Your task to perform on an android device: turn on the 24-hour format for clock Image 0: 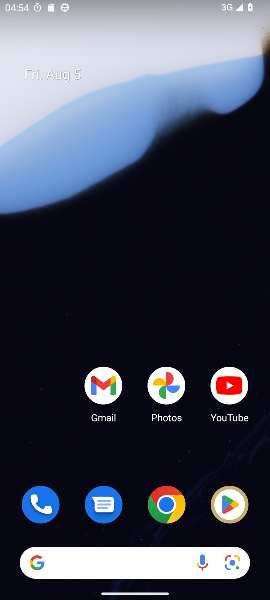
Step 0: drag from (8, 579) to (150, 150)
Your task to perform on an android device: turn on the 24-hour format for clock Image 1: 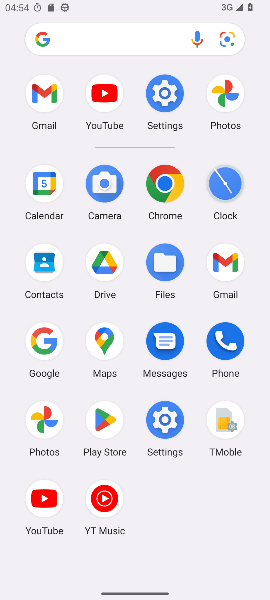
Step 1: click (240, 180)
Your task to perform on an android device: turn on the 24-hour format for clock Image 2: 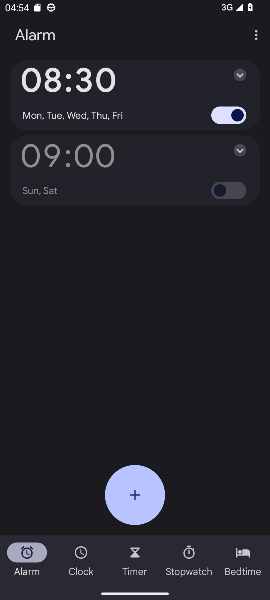
Step 2: click (255, 45)
Your task to perform on an android device: turn on the 24-hour format for clock Image 3: 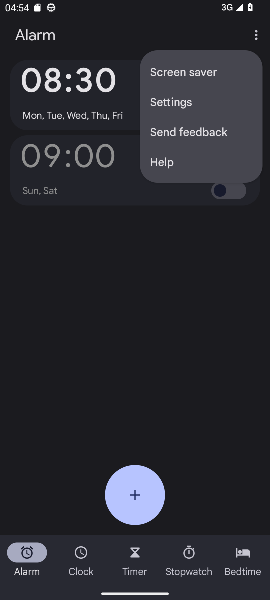
Step 3: click (170, 108)
Your task to perform on an android device: turn on the 24-hour format for clock Image 4: 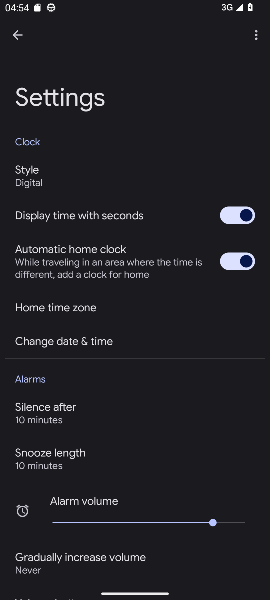
Step 4: click (74, 337)
Your task to perform on an android device: turn on the 24-hour format for clock Image 5: 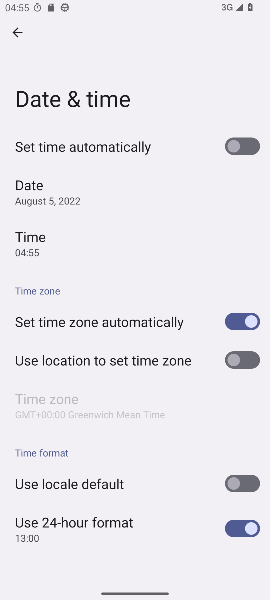
Step 5: task complete